Your task to perform on an android device: set an alarm Image 0: 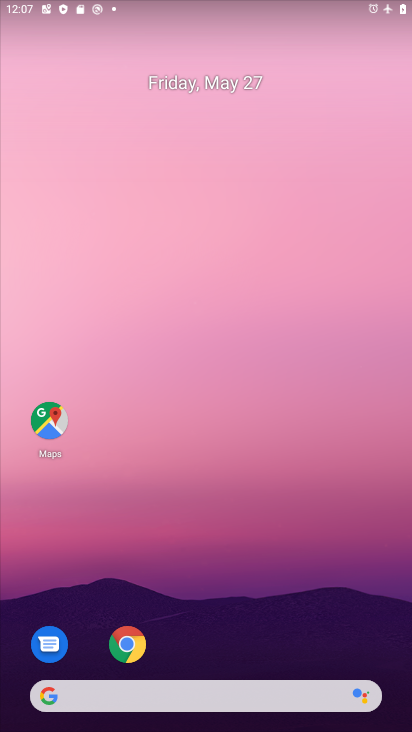
Step 0: drag from (204, 652) to (214, 232)
Your task to perform on an android device: set an alarm Image 1: 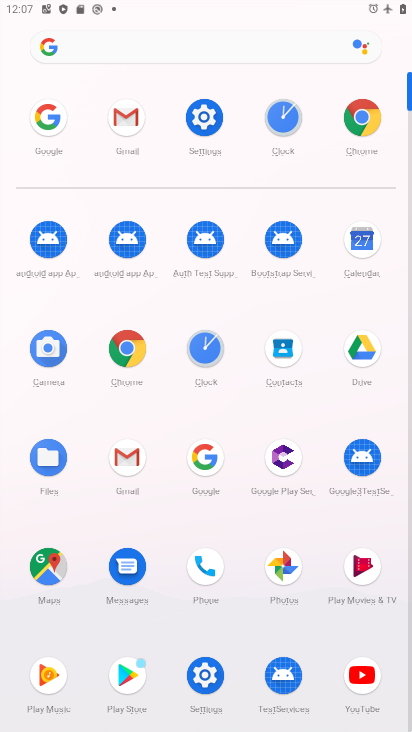
Step 1: click (222, 354)
Your task to perform on an android device: set an alarm Image 2: 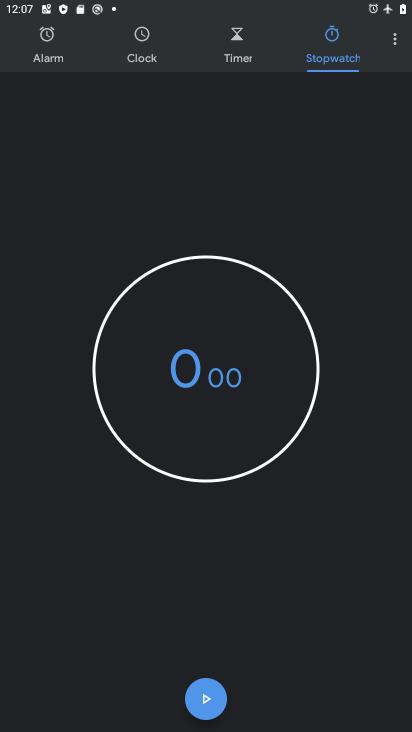
Step 2: click (64, 46)
Your task to perform on an android device: set an alarm Image 3: 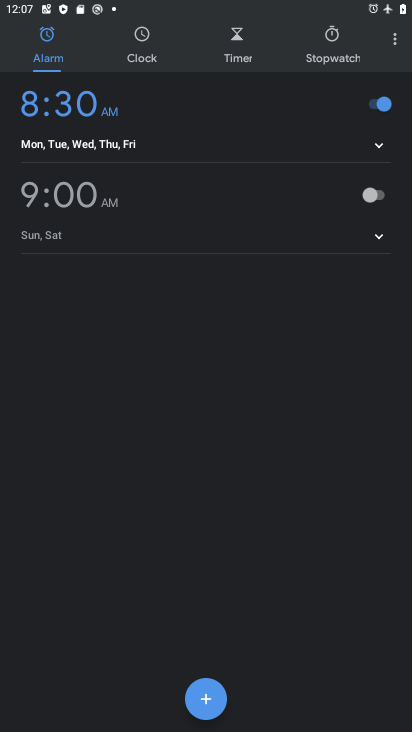
Step 3: click (384, 190)
Your task to perform on an android device: set an alarm Image 4: 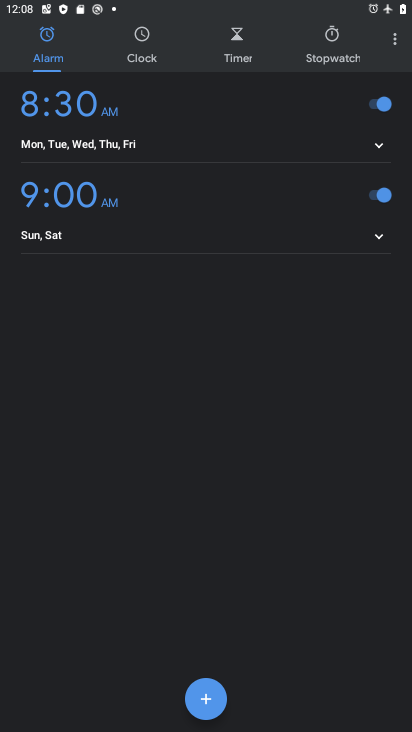
Step 4: task complete